Your task to perform on an android device: turn off location Image 0: 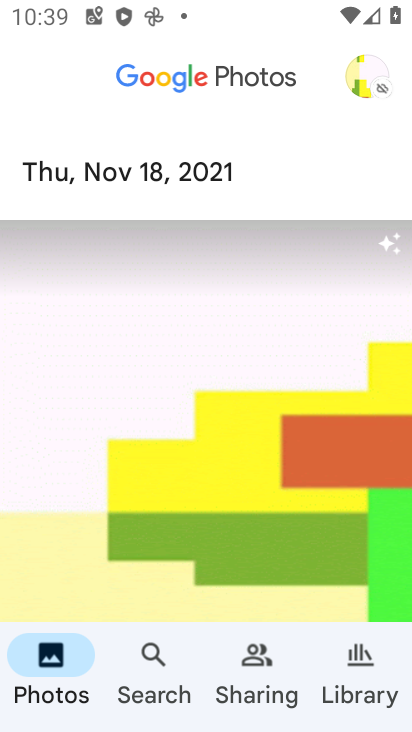
Step 0: press home button
Your task to perform on an android device: turn off location Image 1: 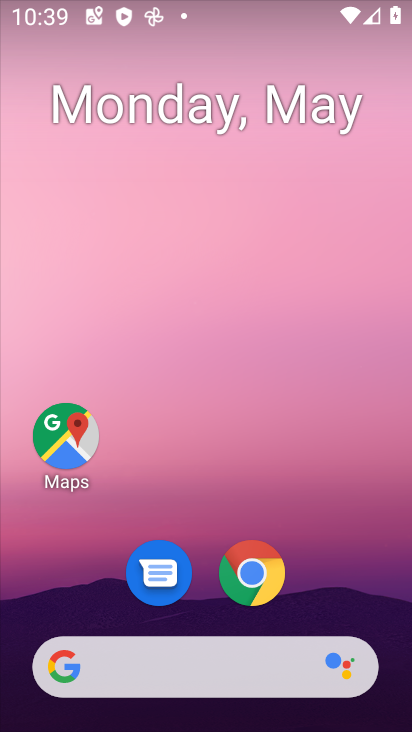
Step 1: drag from (344, 612) to (258, 81)
Your task to perform on an android device: turn off location Image 2: 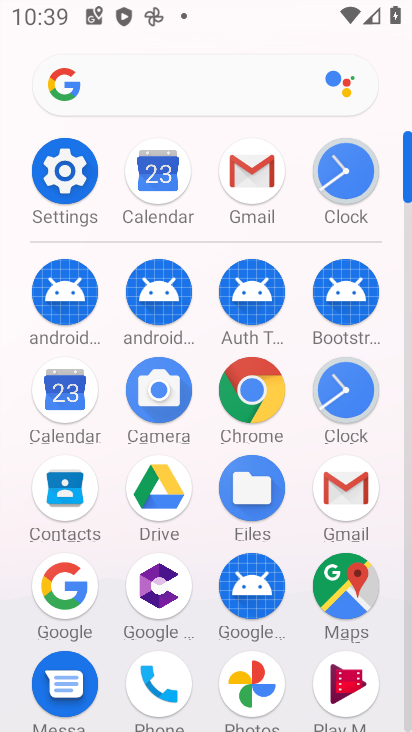
Step 2: click (74, 197)
Your task to perform on an android device: turn off location Image 3: 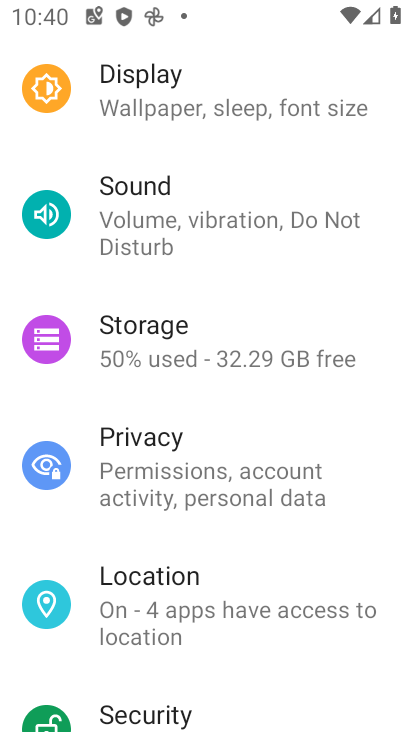
Step 3: click (210, 601)
Your task to perform on an android device: turn off location Image 4: 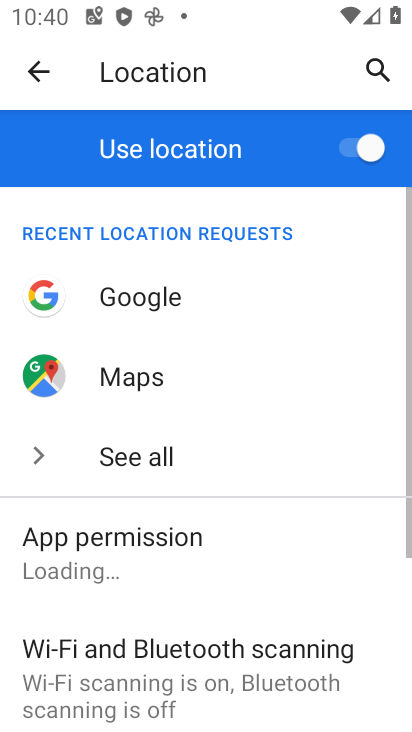
Step 4: click (341, 150)
Your task to perform on an android device: turn off location Image 5: 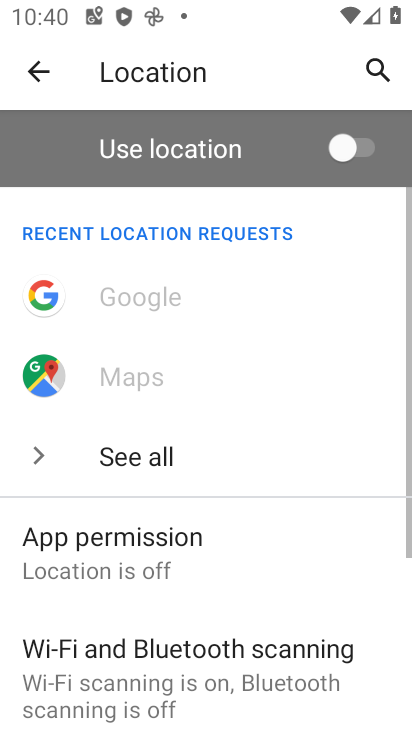
Step 5: task complete